Your task to perform on an android device: Go to sound settings Image 0: 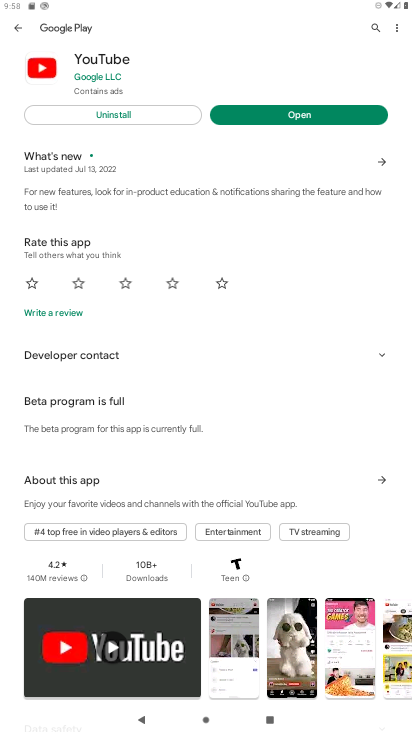
Step 0: press home button
Your task to perform on an android device: Go to sound settings Image 1: 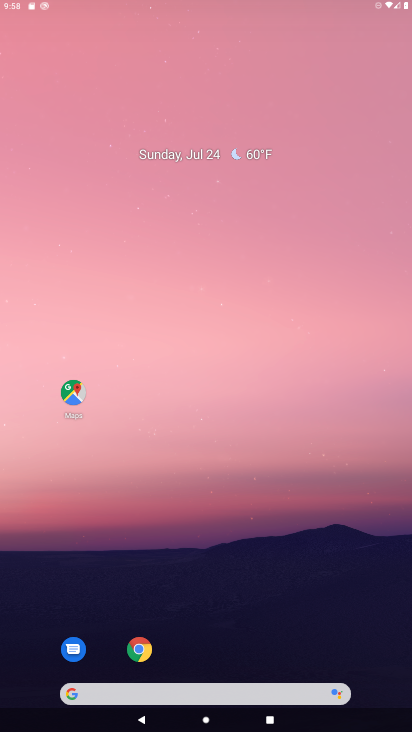
Step 1: drag from (313, 521) to (245, 0)
Your task to perform on an android device: Go to sound settings Image 2: 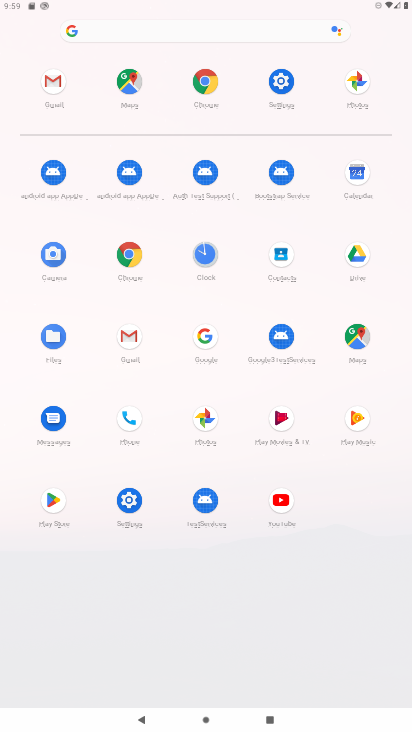
Step 2: click (285, 75)
Your task to perform on an android device: Go to sound settings Image 3: 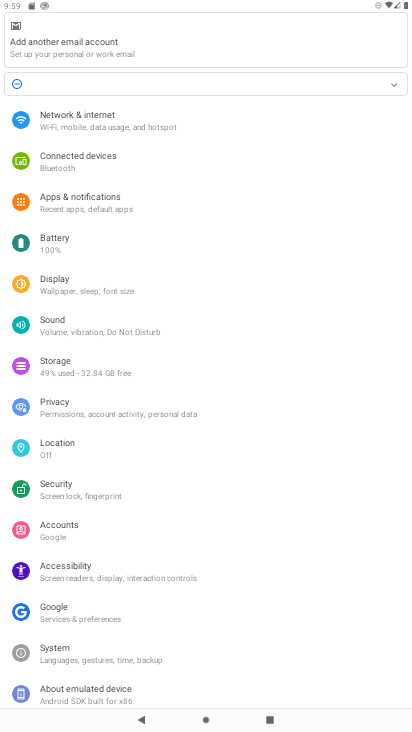
Step 3: click (128, 326)
Your task to perform on an android device: Go to sound settings Image 4: 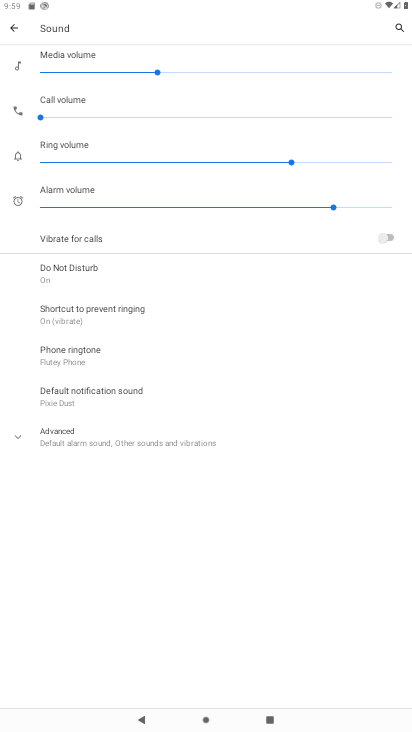
Step 4: task complete